Your task to perform on an android device: View the shopping cart on walmart.com. Image 0: 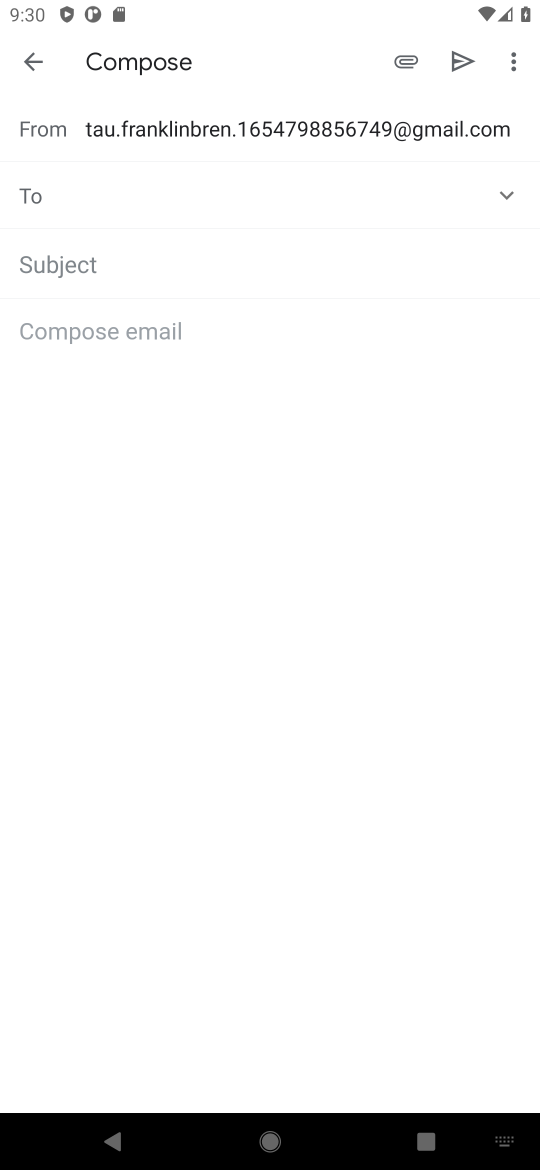
Step 0: press home button
Your task to perform on an android device: View the shopping cart on walmart.com. Image 1: 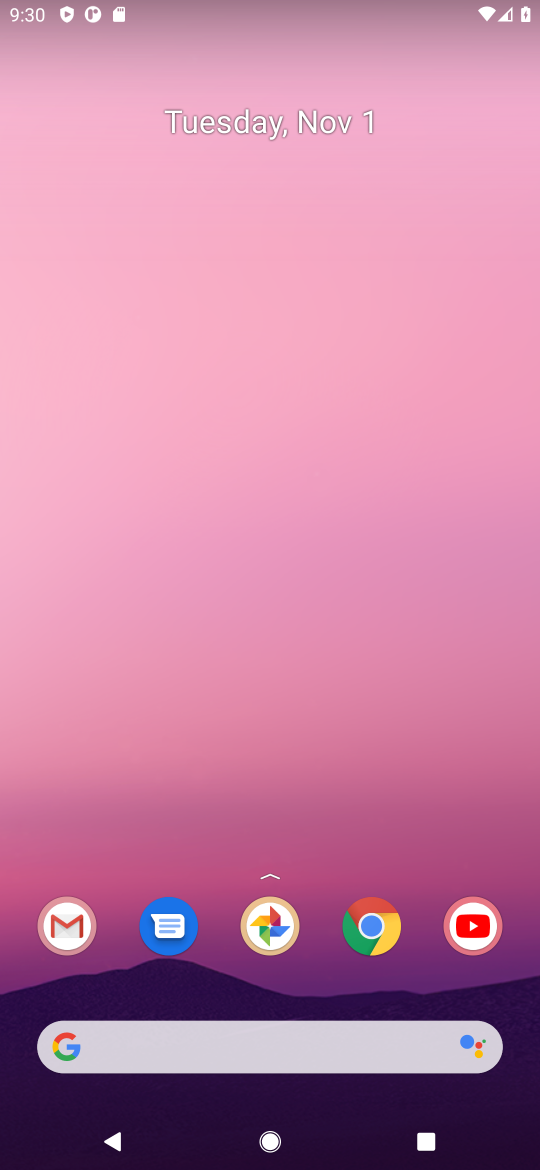
Step 1: click (375, 922)
Your task to perform on an android device: View the shopping cart on walmart.com. Image 2: 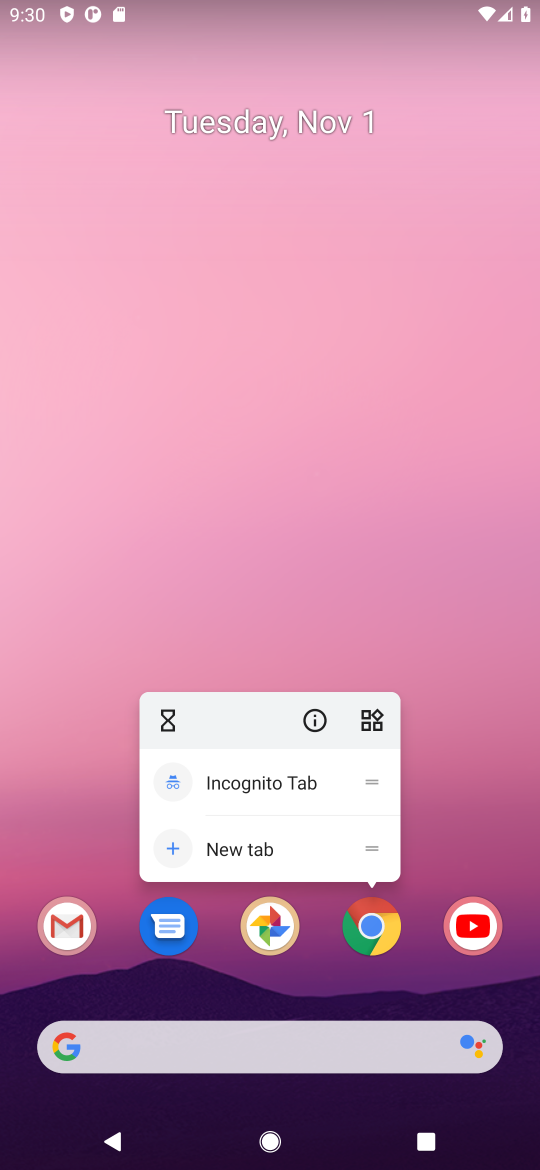
Step 2: click (375, 928)
Your task to perform on an android device: View the shopping cart on walmart.com. Image 3: 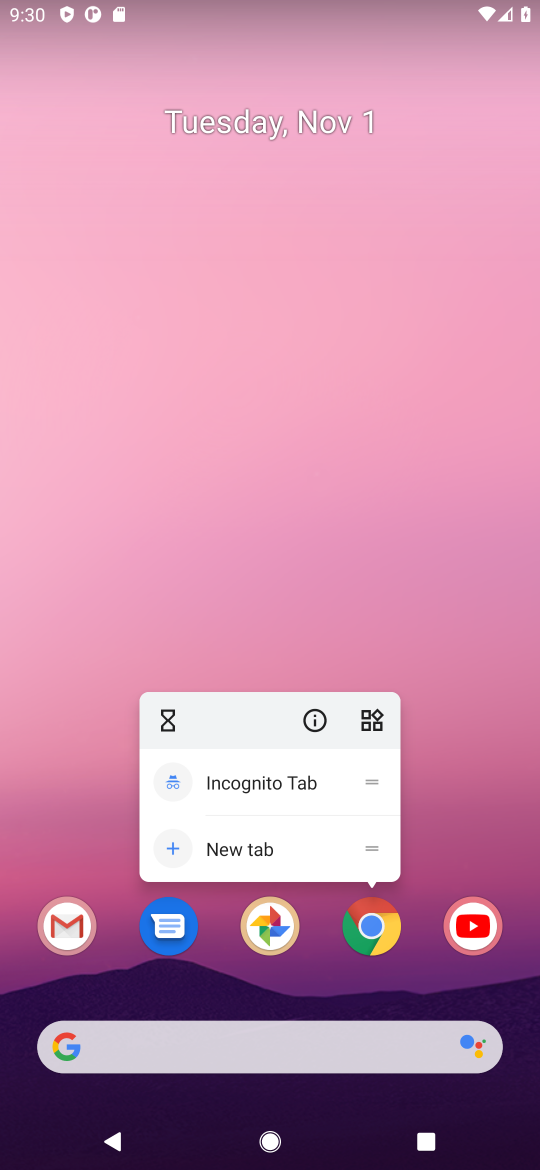
Step 3: click (324, 903)
Your task to perform on an android device: View the shopping cart on walmart.com. Image 4: 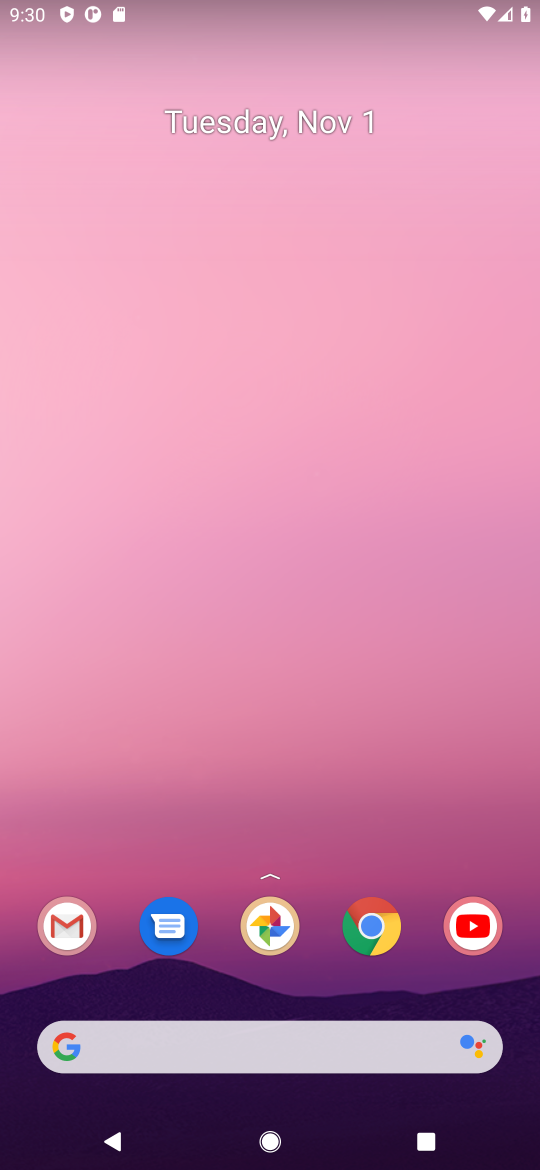
Step 4: click (376, 933)
Your task to perform on an android device: View the shopping cart on walmart.com. Image 5: 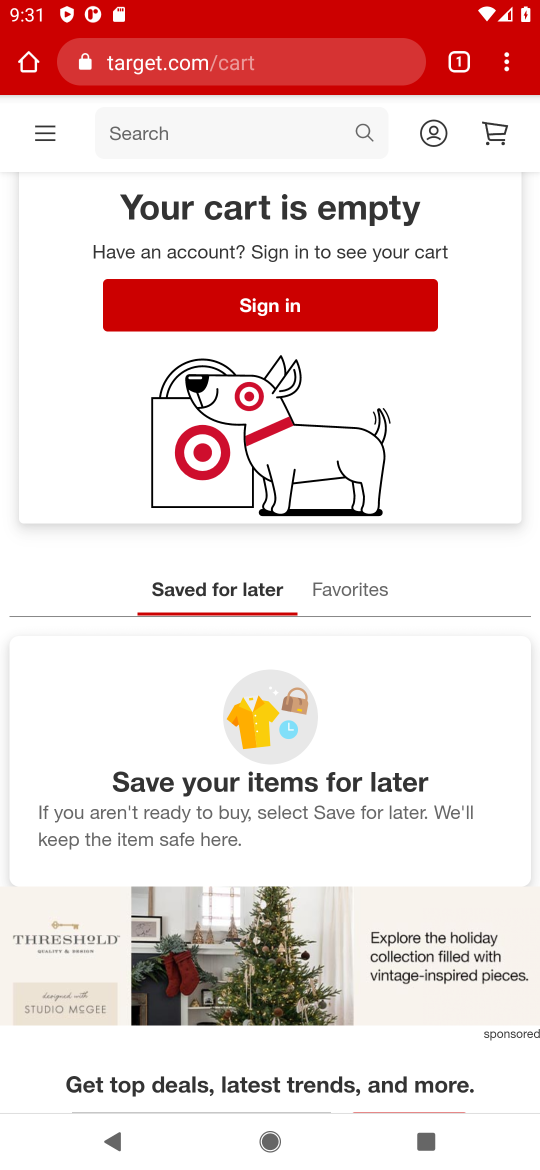
Step 5: click (225, 76)
Your task to perform on an android device: View the shopping cart on walmart.com. Image 6: 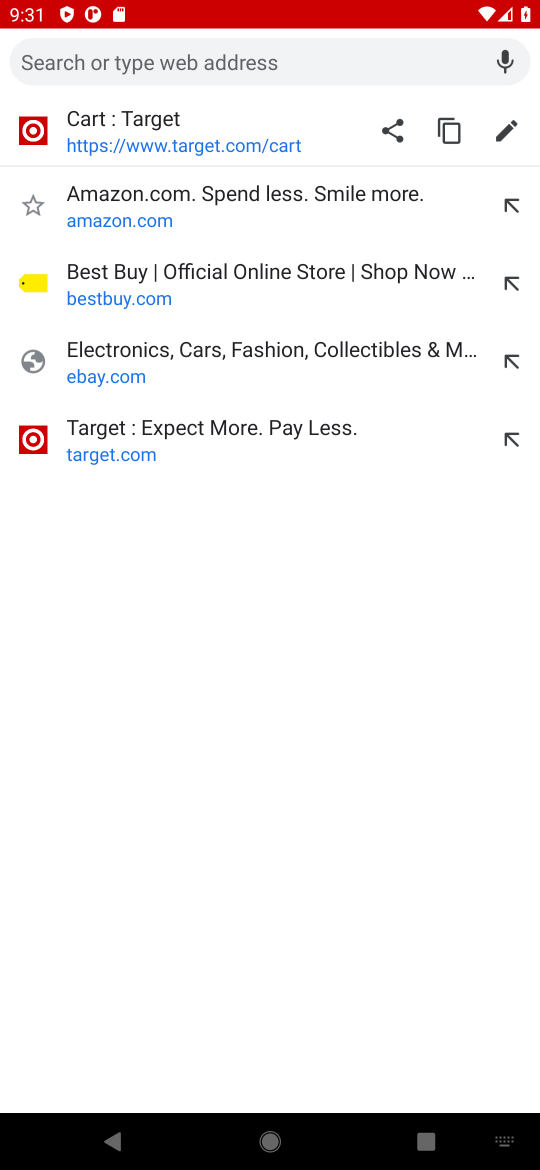
Step 6: type "walmart.com"
Your task to perform on an android device: View the shopping cart on walmart.com. Image 7: 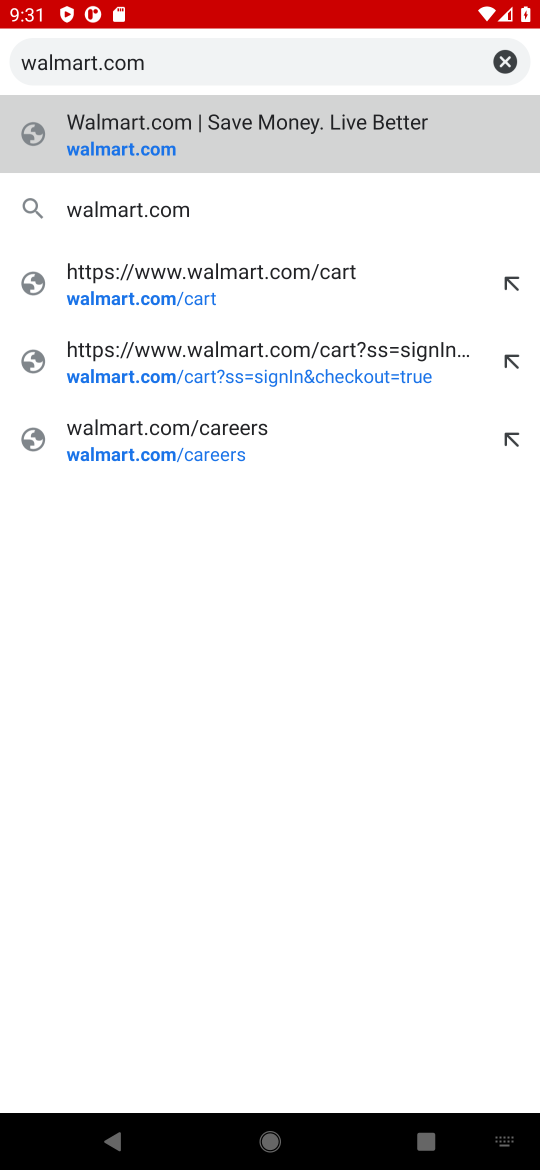
Step 7: click (174, 433)
Your task to perform on an android device: View the shopping cart on walmart.com. Image 8: 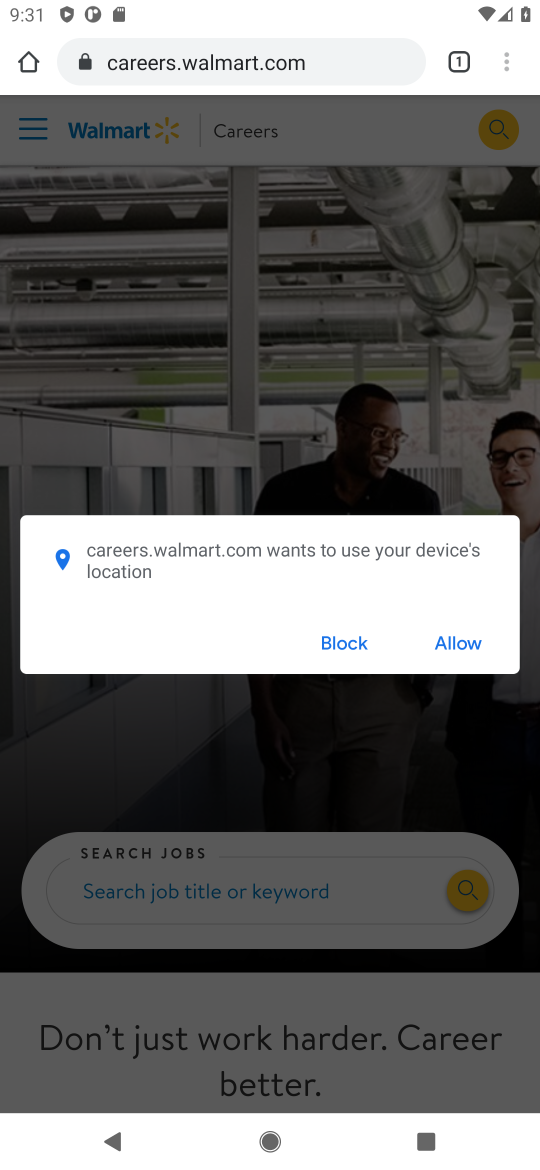
Step 8: click (480, 656)
Your task to perform on an android device: View the shopping cart on walmart.com. Image 9: 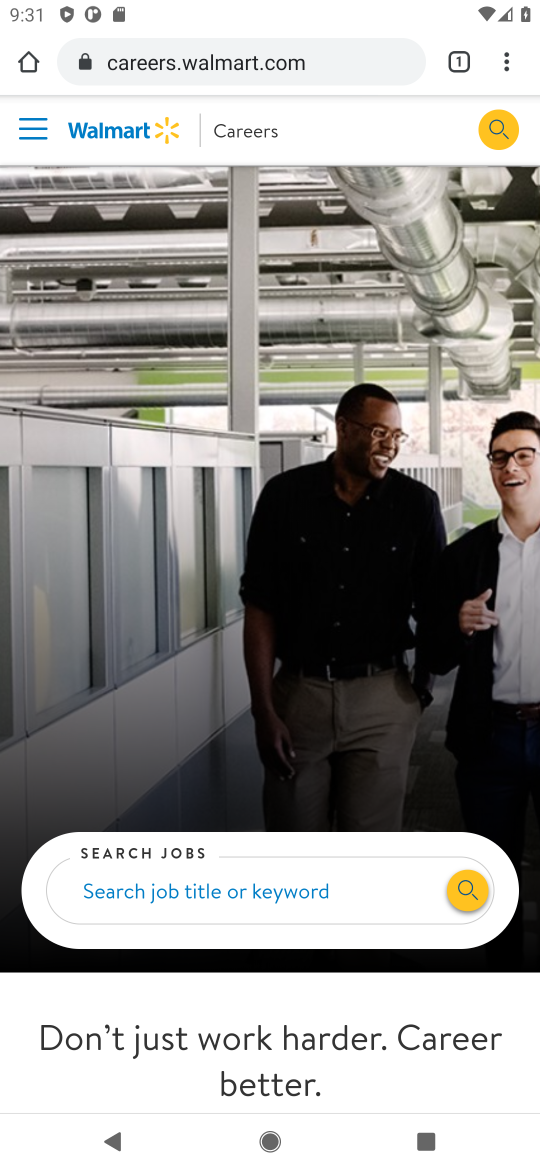
Step 9: click (225, 130)
Your task to perform on an android device: View the shopping cart on walmart.com. Image 10: 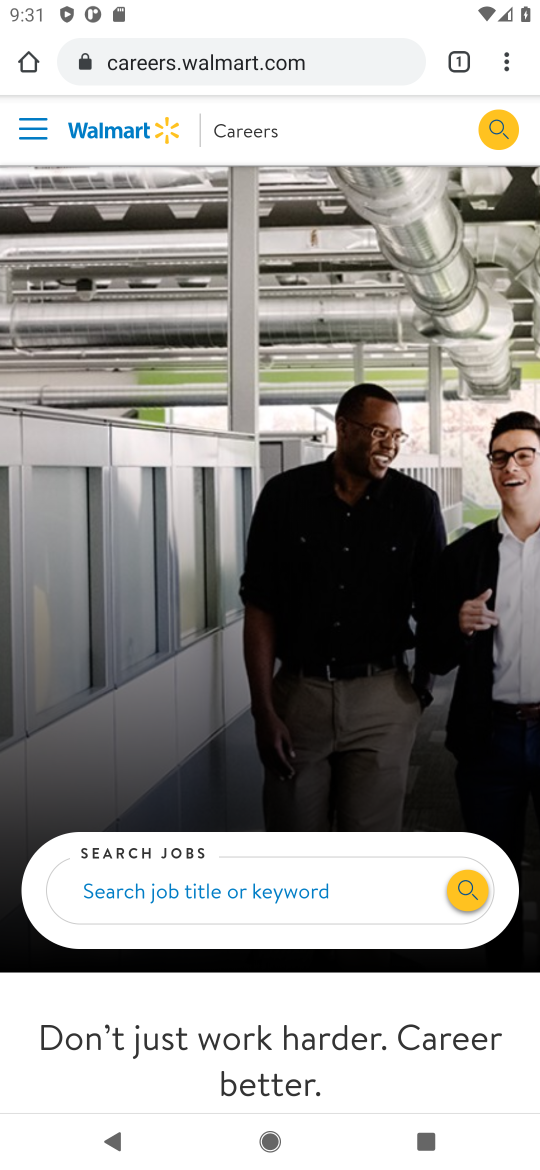
Step 10: click (19, 135)
Your task to perform on an android device: View the shopping cart on walmart.com. Image 11: 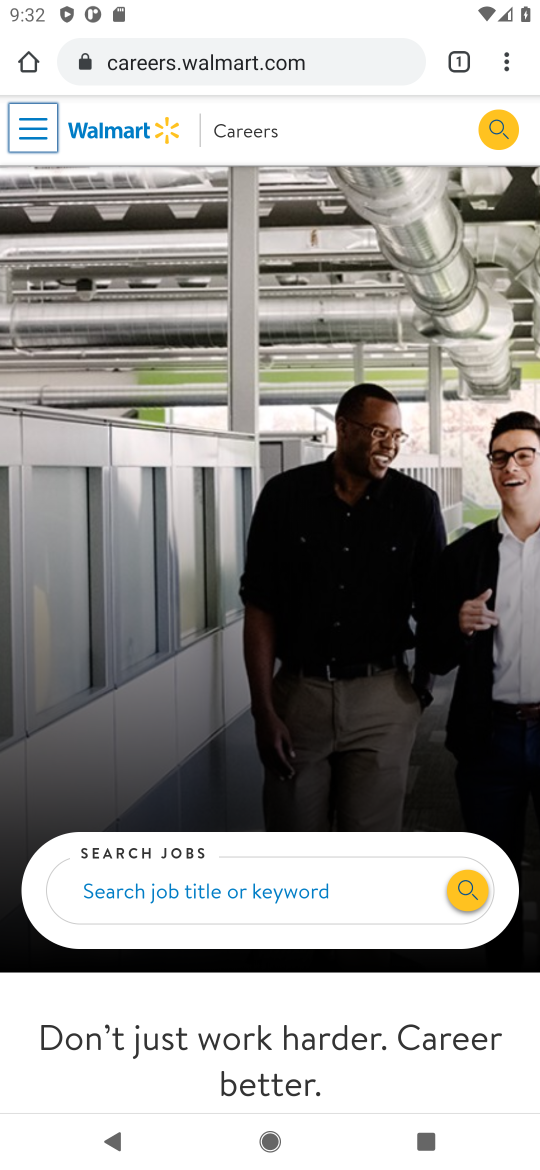
Step 11: click (38, 125)
Your task to perform on an android device: View the shopping cart on walmart.com. Image 12: 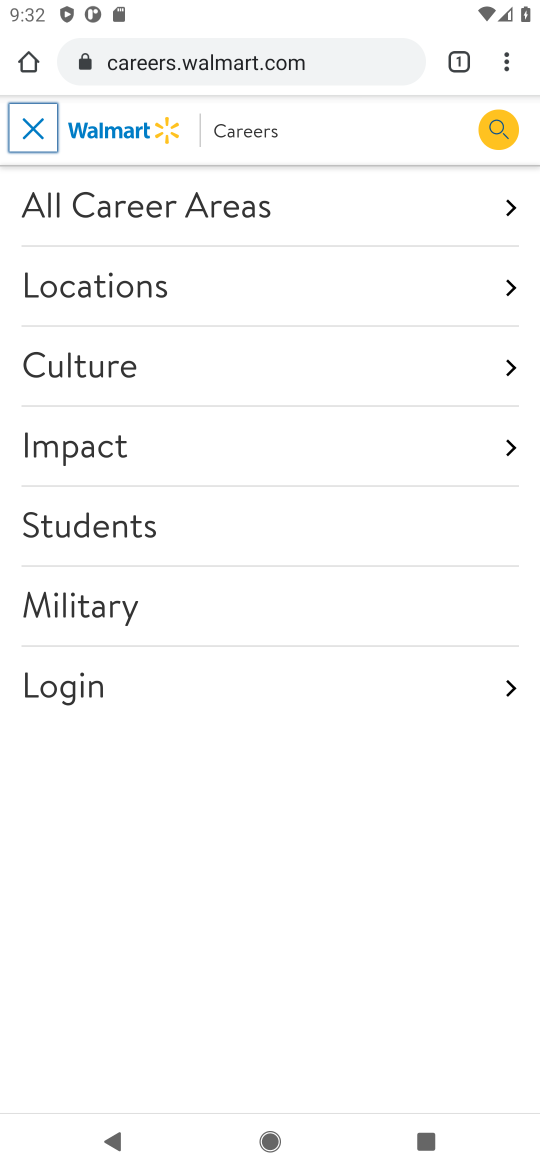
Step 12: click (24, 126)
Your task to perform on an android device: View the shopping cart on walmart.com. Image 13: 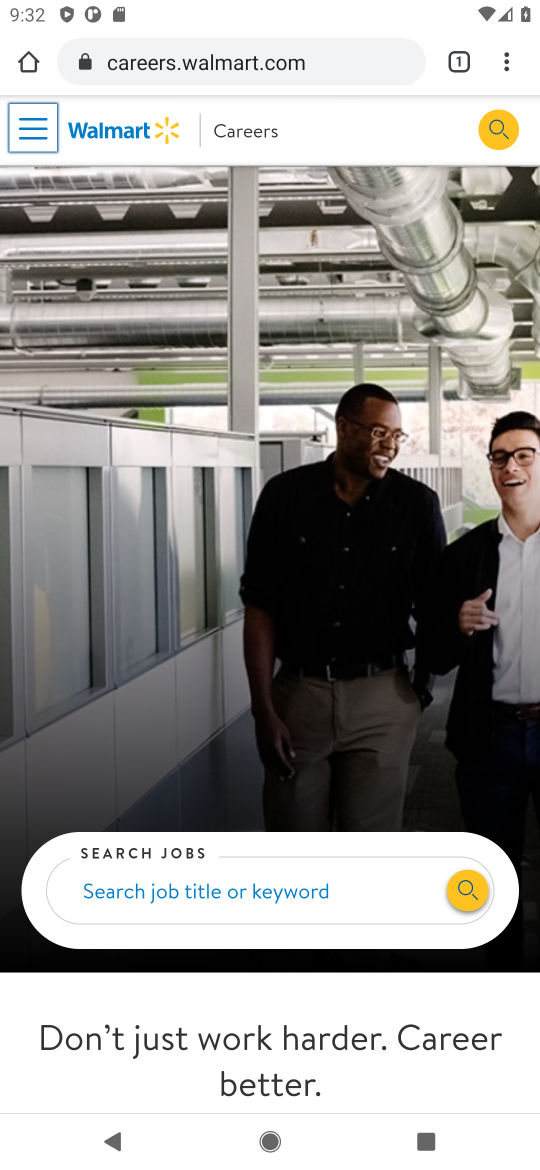
Step 13: click (505, 121)
Your task to perform on an android device: View the shopping cart on walmart.com. Image 14: 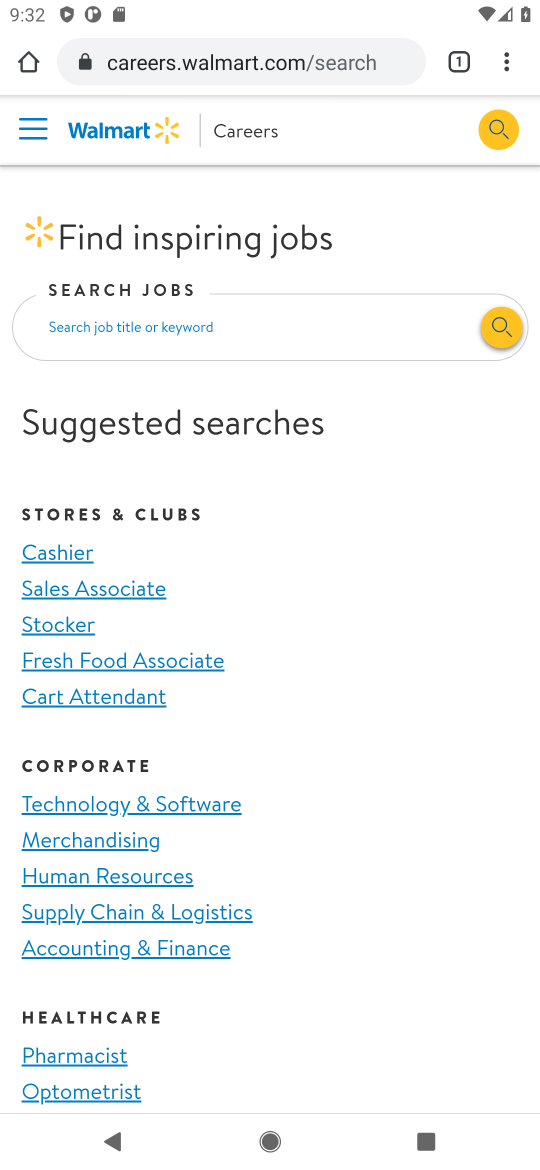
Step 14: task complete